Your task to perform on an android device: Search for pizza restaurants on Maps Image 0: 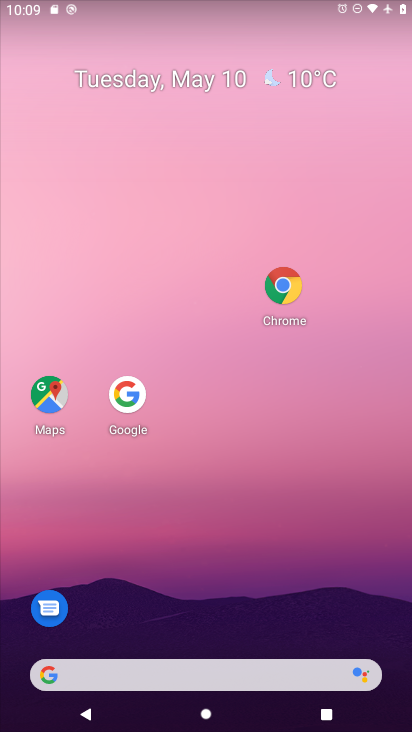
Step 0: click (46, 402)
Your task to perform on an android device: Search for pizza restaurants on Maps Image 1: 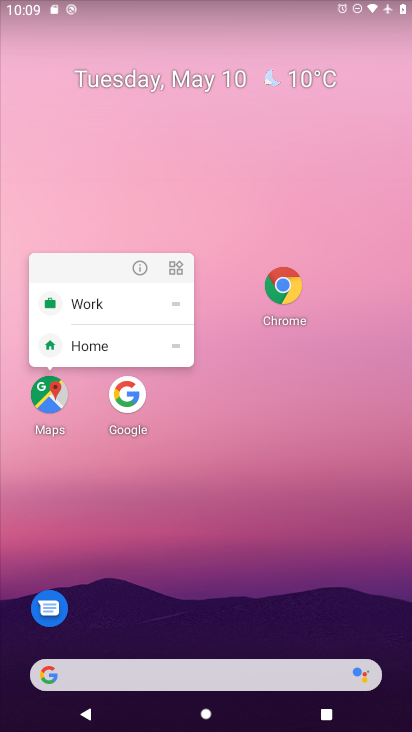
Step 1: click (43, 405)
Your task to perform on an android device: Search for pizza restaurants on Maps Image 2: 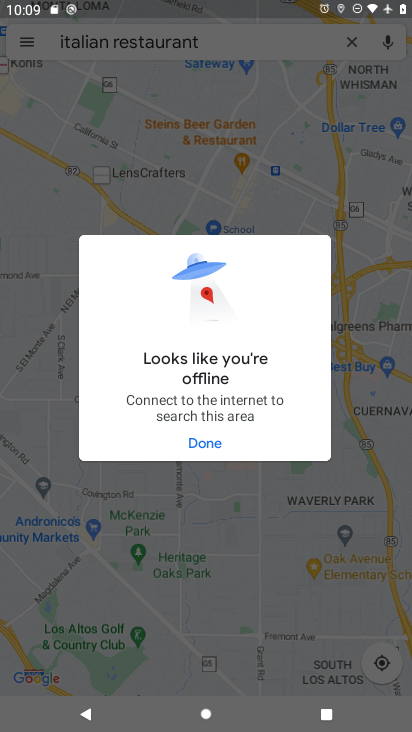
Step 2: click (194, 442)
Your task to perform on an android device: Search for pizza restaurants on Maps Image 3: 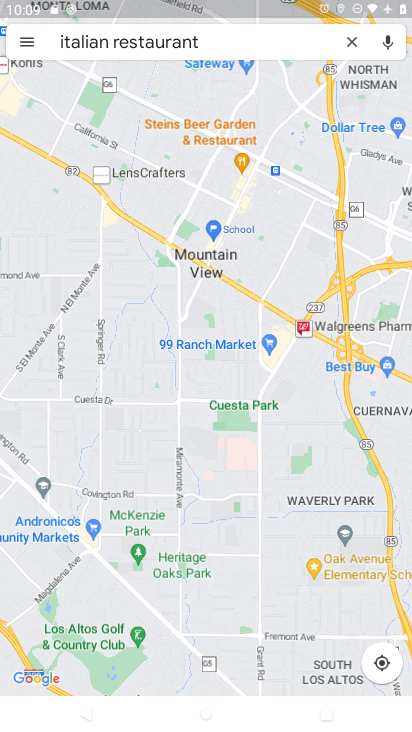
Step 3: click (350, 44)
Your task to perform on an android device: Search for pizza restaurants on Maps Image 4: 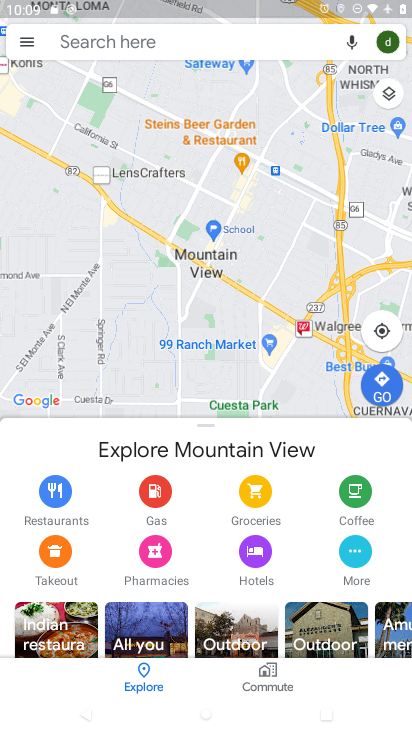
Step 4: click (222, 44)
Your task to perform on an android device: Search for pizza restaurants on Maps Image 5: 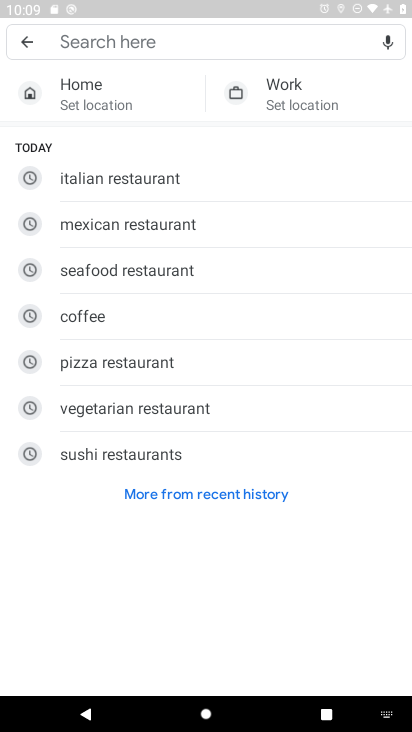
Step 5: click (143, 364)
Your task to perform on an android device: Search for pizza restaurants on Maps Image 6: 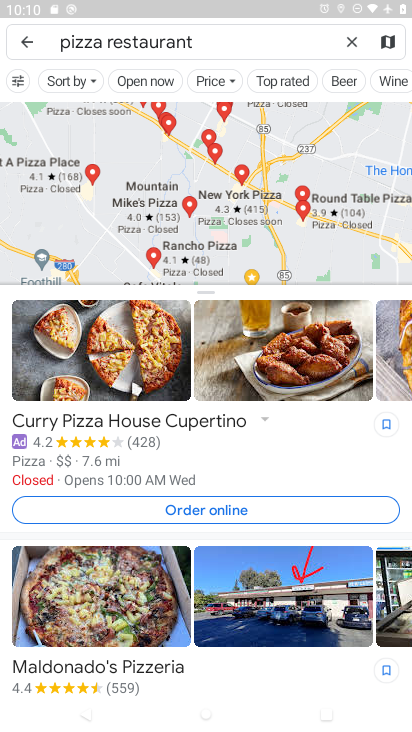
Step 6: task complete